Your task to perform on an android device: Show me recent news Image 0: 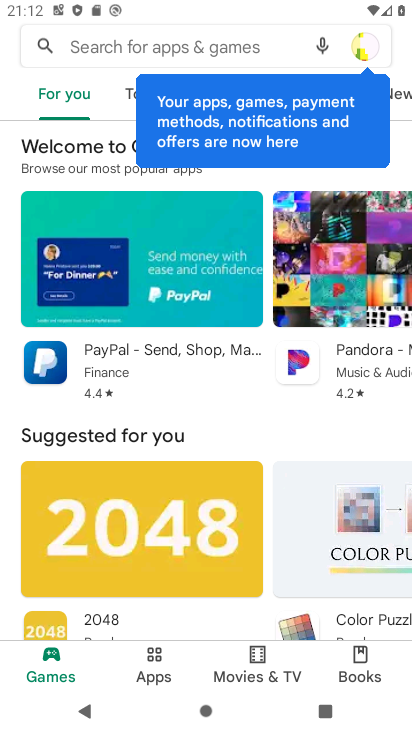
Step 0: press home button
Your task to perform on an android device: Show me recent news Image 1: 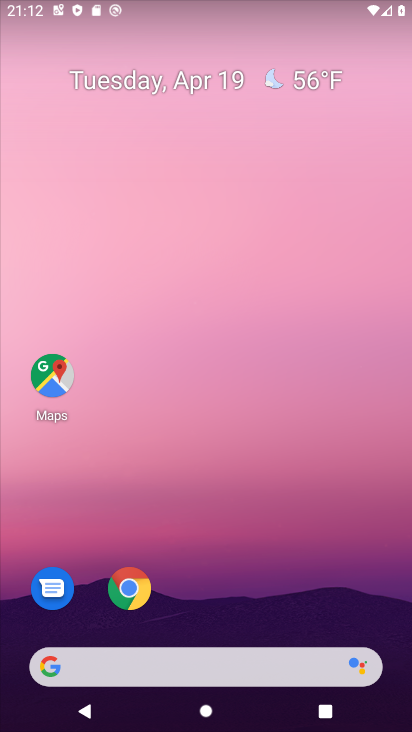
Step 1: drag from (228, 592) to (313, 32)
Your task to perform on an android device: Show me recent news Image 2: 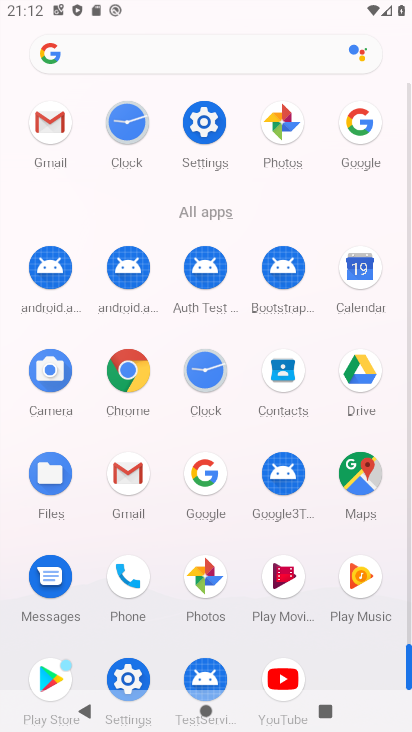
Step 2: click (203, 468)
Your task to perform on an android device: Show me recent news Image 3: 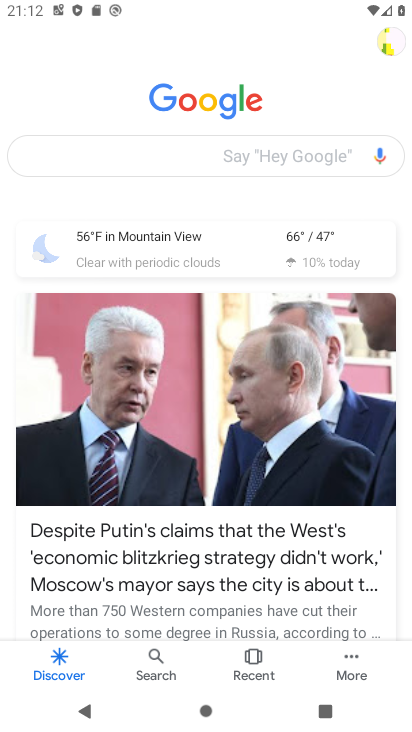
Step 3: drag from (187, 569) to (232, 375)
Your task to perform on an android device: Show me recent news Image 4: 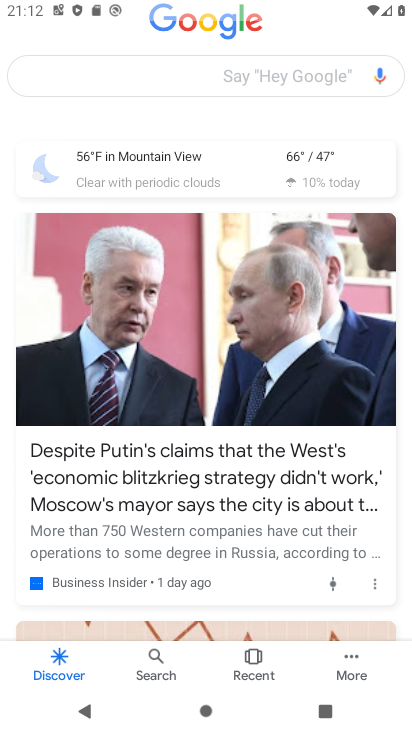
Step 4: drag from (231, 279) to (234, 425)
Your task to perform on an android device: Show me recent news Image 5: 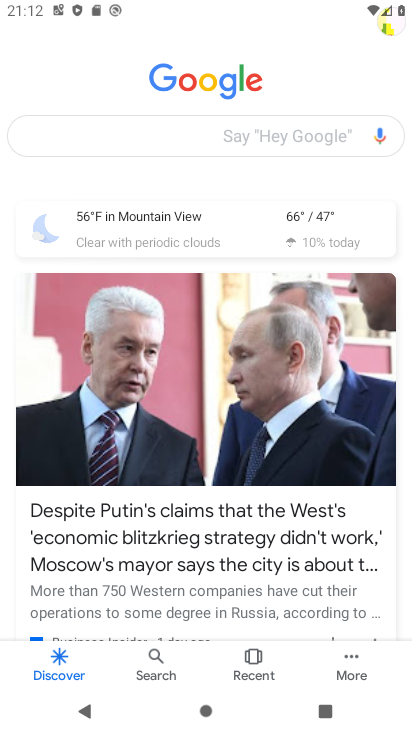
Step 5: click (256, 134)
Your task to perform on an android device: Show me recent news Image 6: 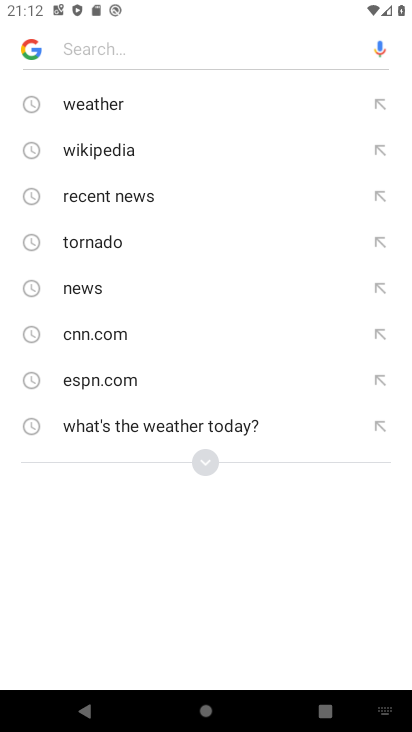
Step 6: click (140, 194)
Your task to perform on an android device: Show me recent news Image 7: 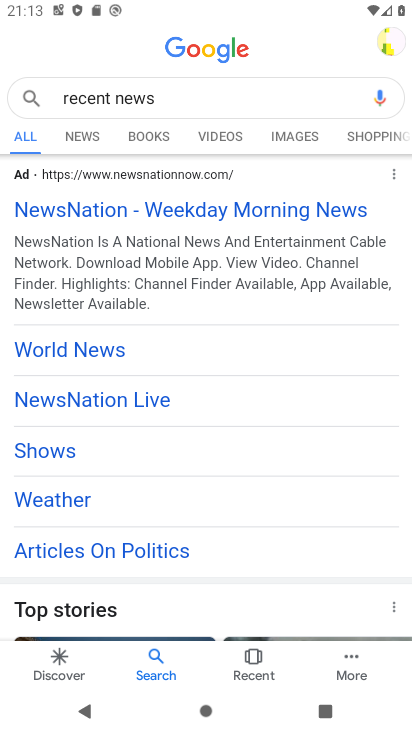
Step 7: task complete